Your task to perform on an android device: empty trash in the gmail app Image 0: 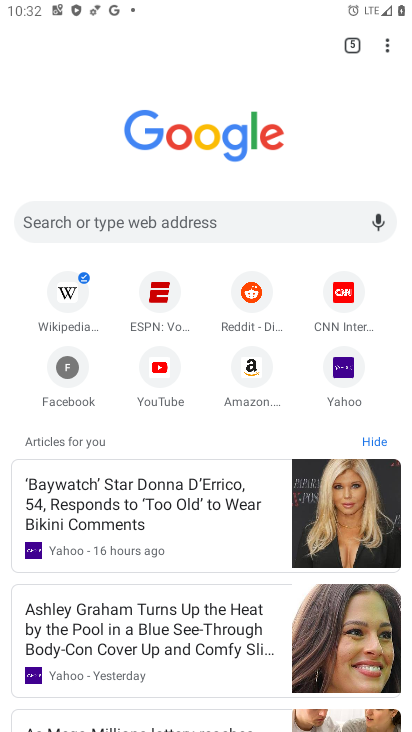
Step 0: press home button
Your task to perform on an android device: empty trash in the gmail app Image 1: 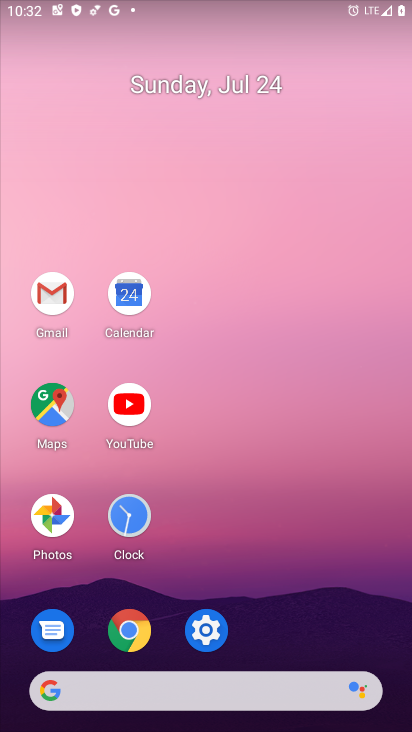
Step 1: click (31, 286)
Your task to perform on an android device: empty trash in the gmail app Image 2: 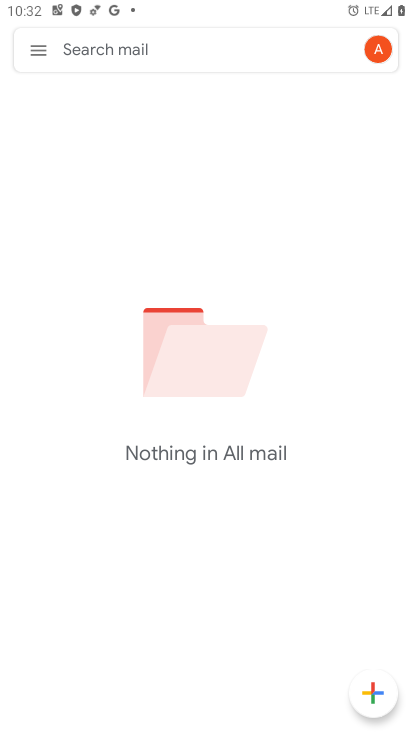
Step 2: click (37, 47)
Your task to perform on an android device: empty trash in the gmail app Image 3: 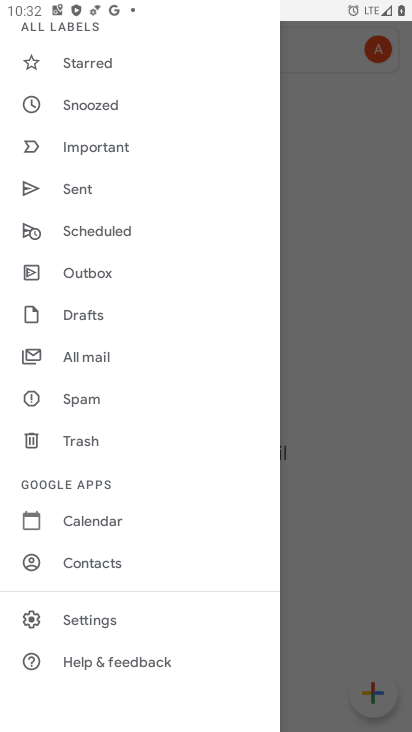
Step 3: click (70, 441)
Your task to perform on an android device: empty trash in the gmail app Image 4: 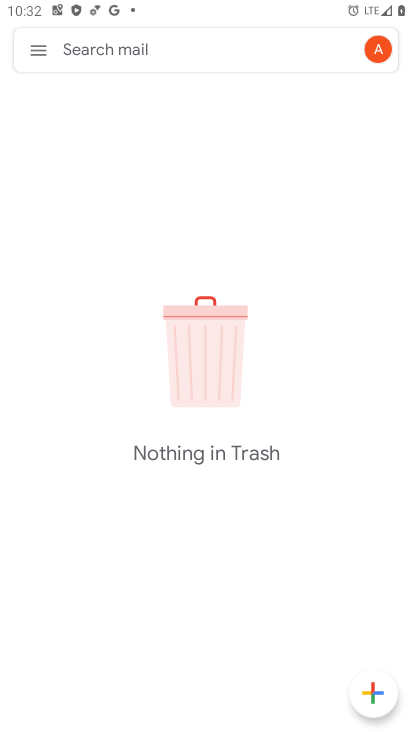
Step 4: task complete